Your task to perform on an android device: Set the phone to "Do not disturb". Image 0: 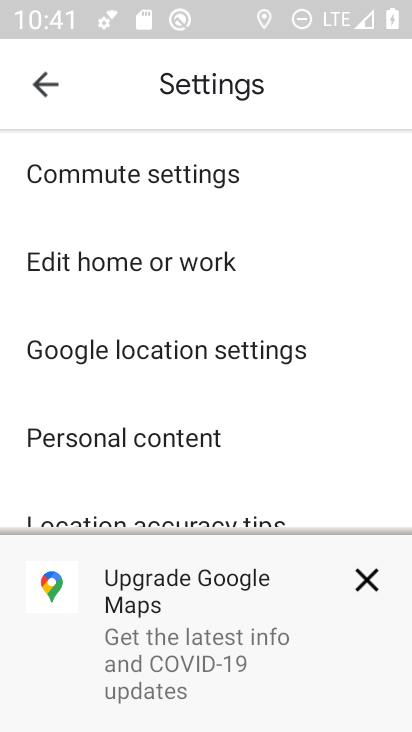
Step 0: press back button
Your task to perform on an android device: Set the phone to "Do not disturb". Image 1: 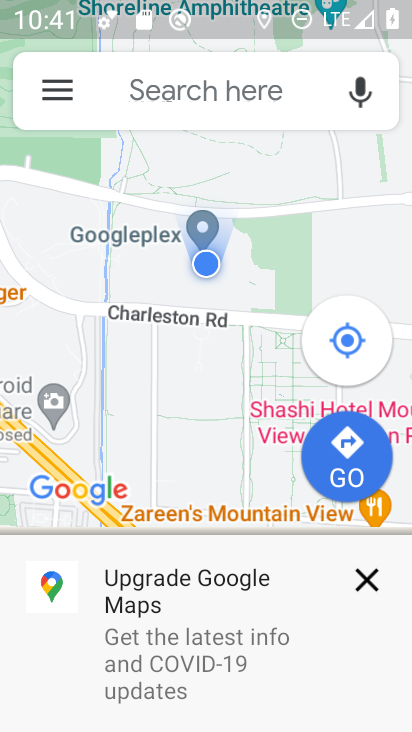
Step 1: press back button
Your task to perform on an android device: Set the phone to "Do not disturb". Image 2: 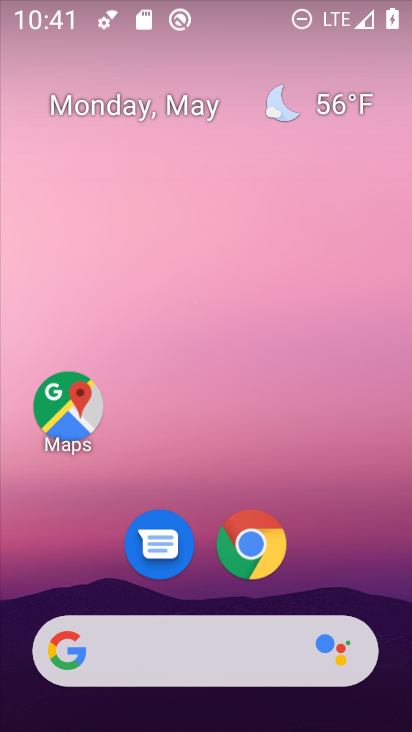
Step 2: drag from (337, 548) to (255, 131)
Your task to perform on an android device: Set the phone to "Do not disturb". Image 3: 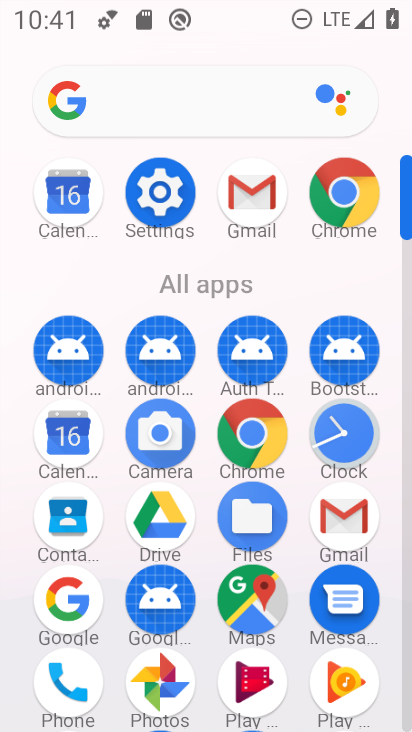
Step 3: click (159, 194)
Your task to perform on an android device: Set the phone to "Do not disturb". Image 4: 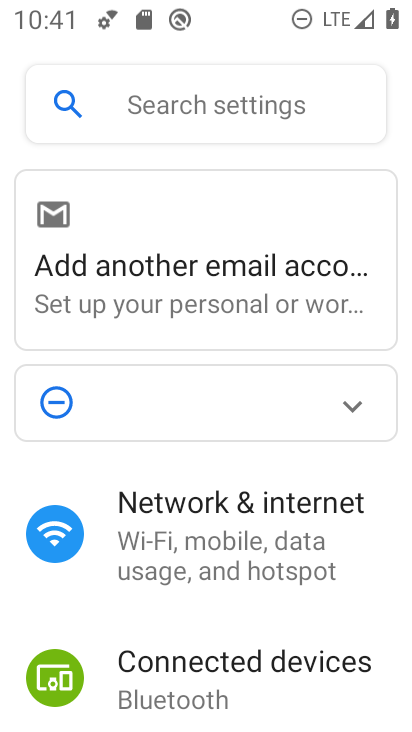
Step 4: drag from (159, 492) to (167, 295)
Your task to perform on an android device: Set the phone to "Do not disturb". Image 5: 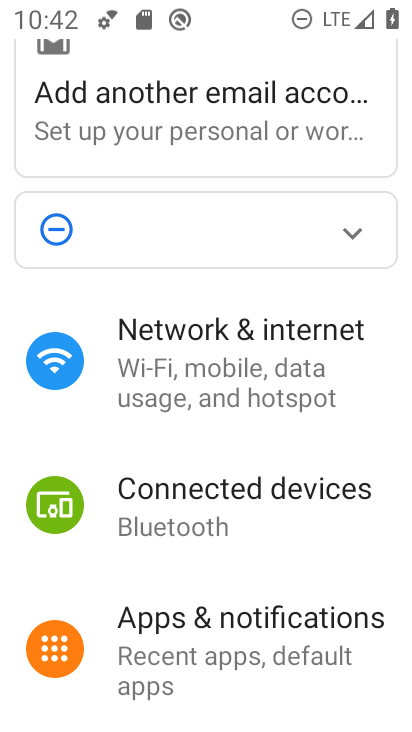
Step 5: drag from (189, 569) to (192, 376)
Your task to perform on an android device: Set the phone to "Do not disturb". Image 6: 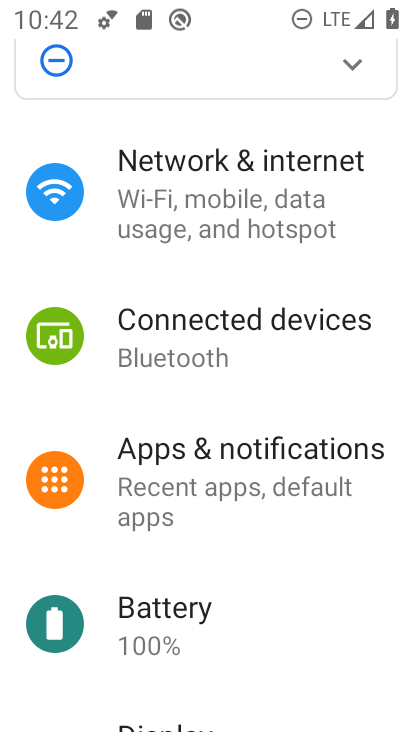
Step 6: drag from (157, 556) to (156, 368)
Your task to perform on an android device: Set the phone to "Do not disturb". Image 7: 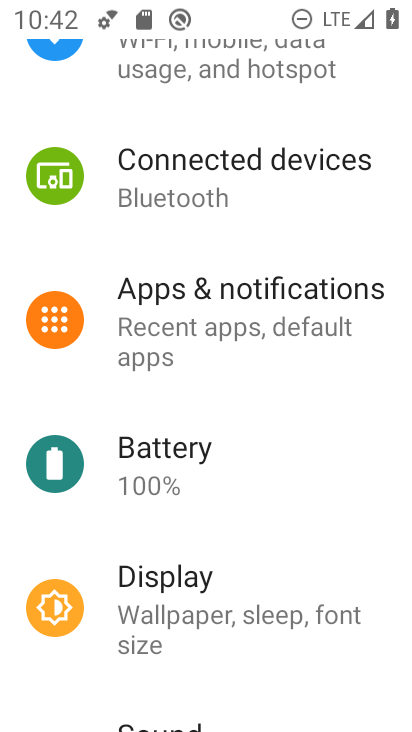
Step 7: drag from (158, 538) to (176, 389)
Your task to perform on an android device: Set the phone to "Do not disturb". Image 8: 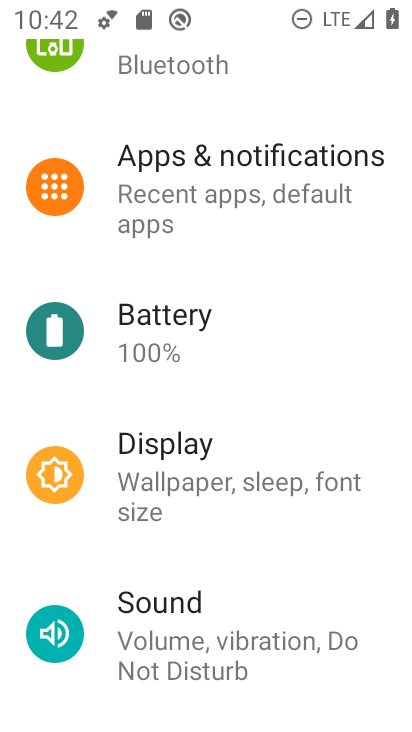
Step 8: drag from (150, 555) to (175, 367)
Your task to perform on an android device: Set the phone to "Do not disturb". Image 9: 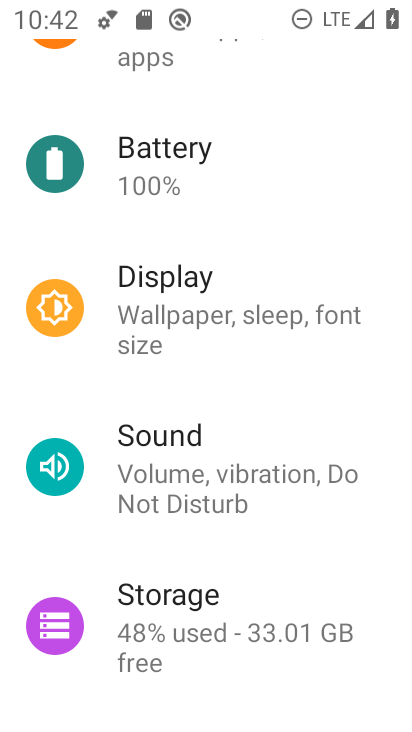
Step 9: click (170, 455)
Your task to perform on an android device: Set the phone to "Do not disturb". Image 10: 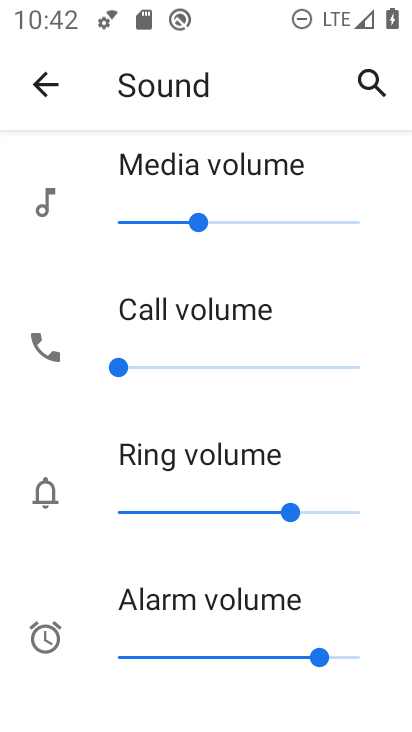
Step 10: task complete